Your task to perform on an android device: see sites visited before in the chrome app Image 0: 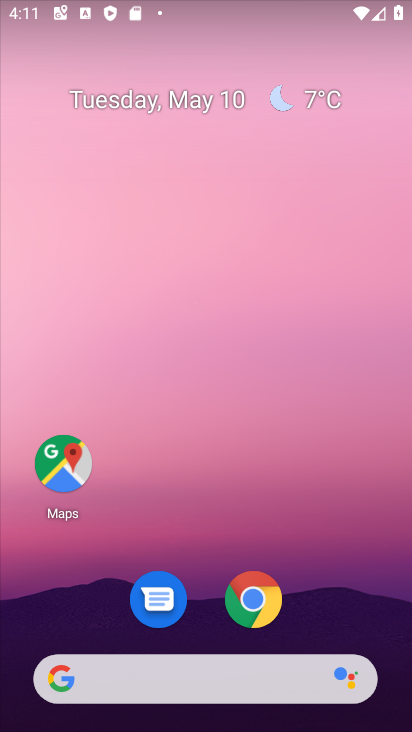
Step 0: drag from (209, 624) to (229, 163)
Your task to perform on an android device: see sites visited before in the chrome app Image 1: 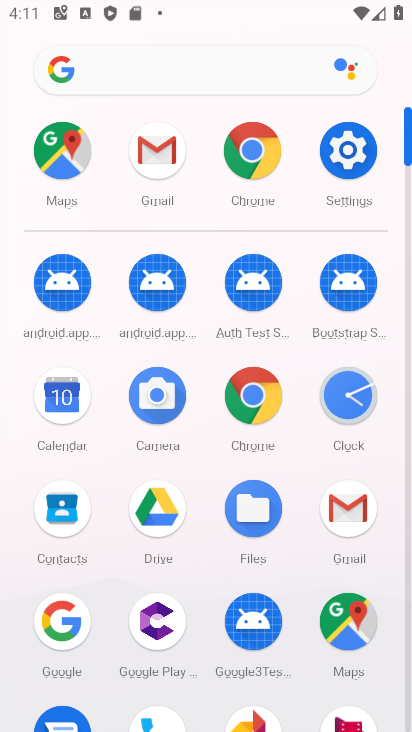
Step 1: click (256, 180)
Your task to perform on an android device: see sites visited before in the chrome app Image 2: 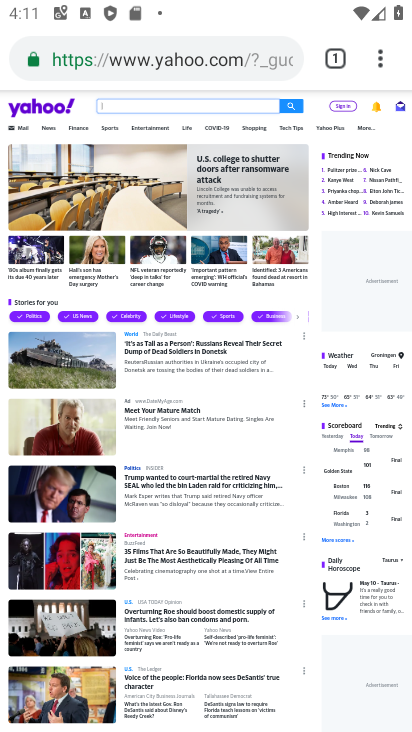
Step 2: click (388, 69)
Your task to perform on an android device: see sites visited before in the chrome app Image 3: 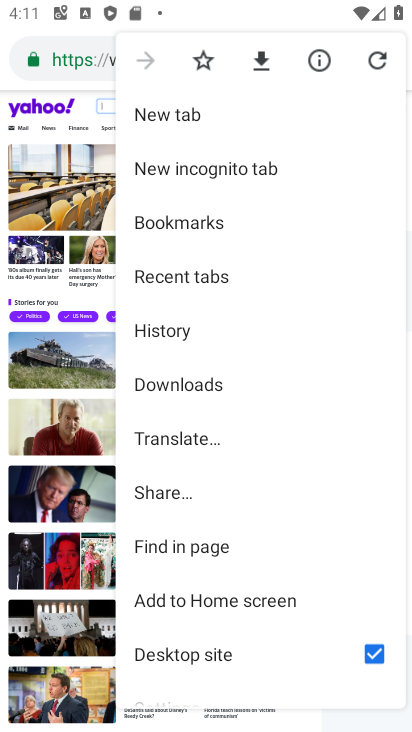
Step 3: click (188, 320)
Your task to perform on an android device: see sites visited before in the chrome app Image 4: 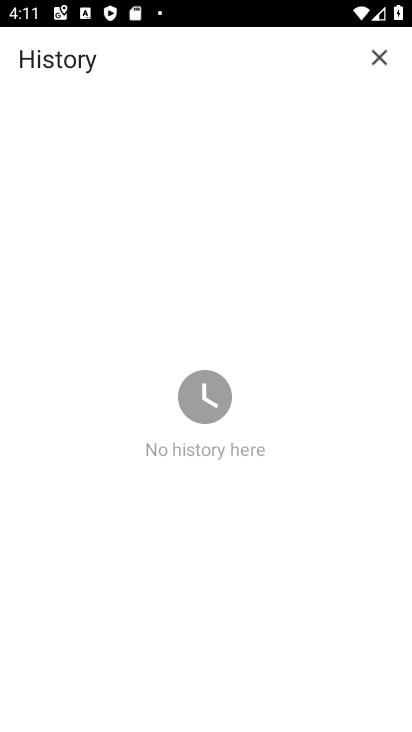
Step 4: task complete